Your task to perform on an android device: What's the weather today? Image 0: 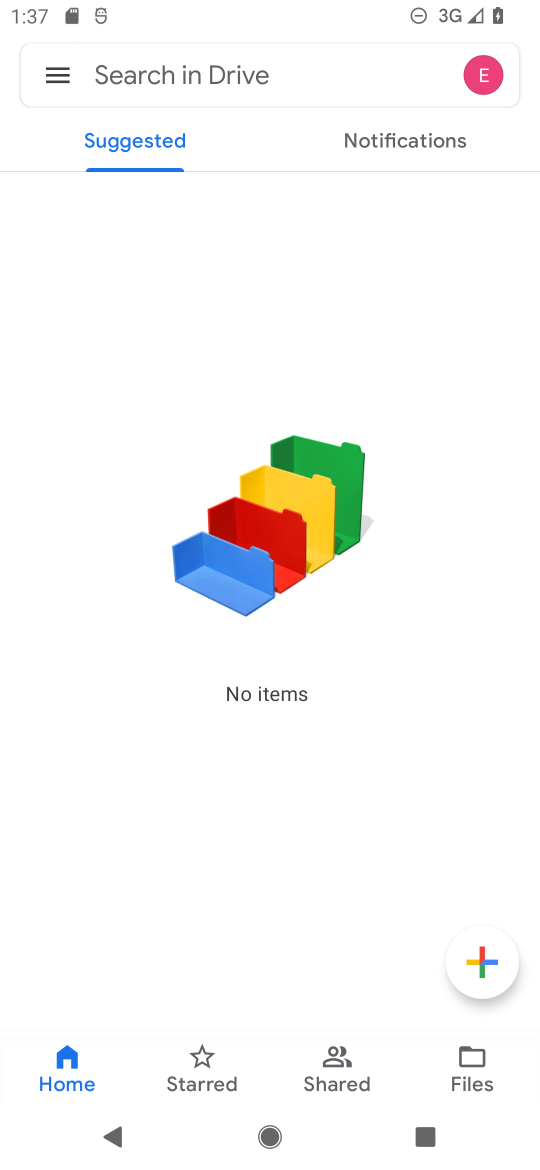
Step 0: press home button
Your task to perform on an android device: What's the weather today? Image 1: 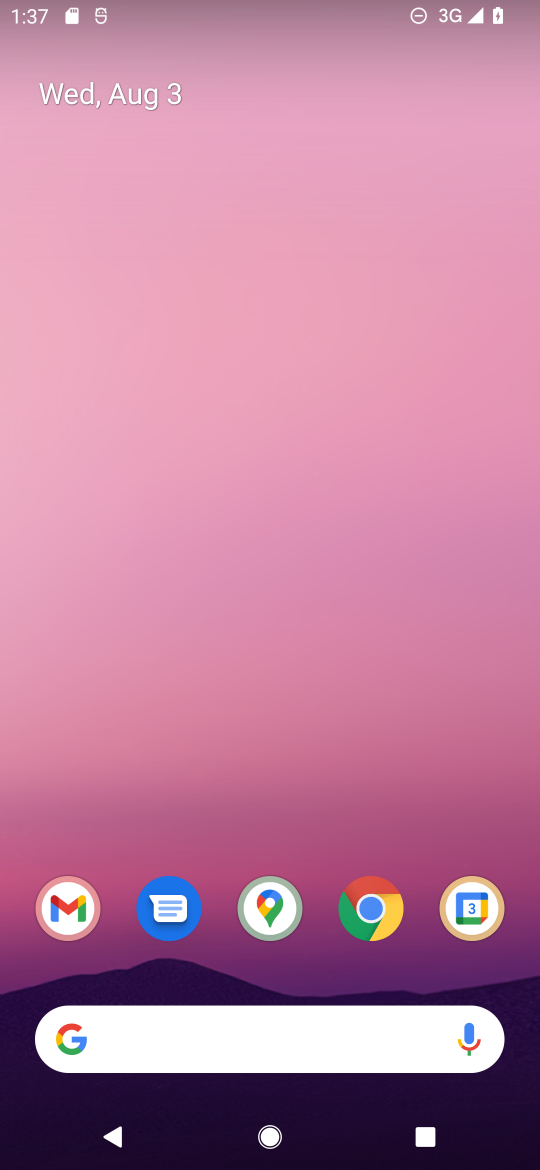
Step 1: drag from (245, 947) to (230, 376)
Your task to perform on an android device: What's the weather today? Image 2: 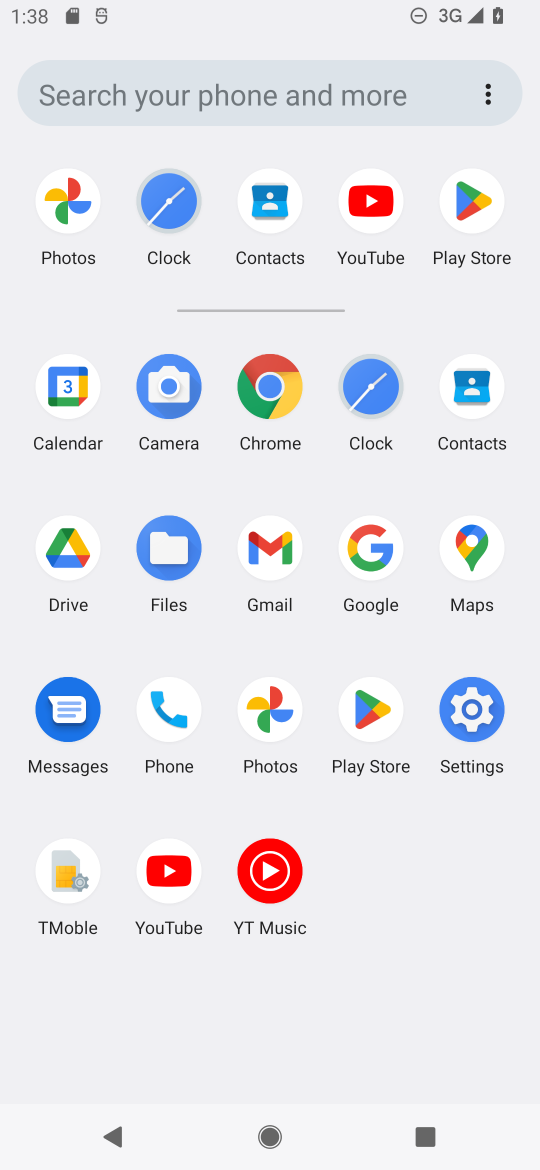
Step 2: click (360, 563)
Your task to perform on an android device: What's the weather today? Image 3: 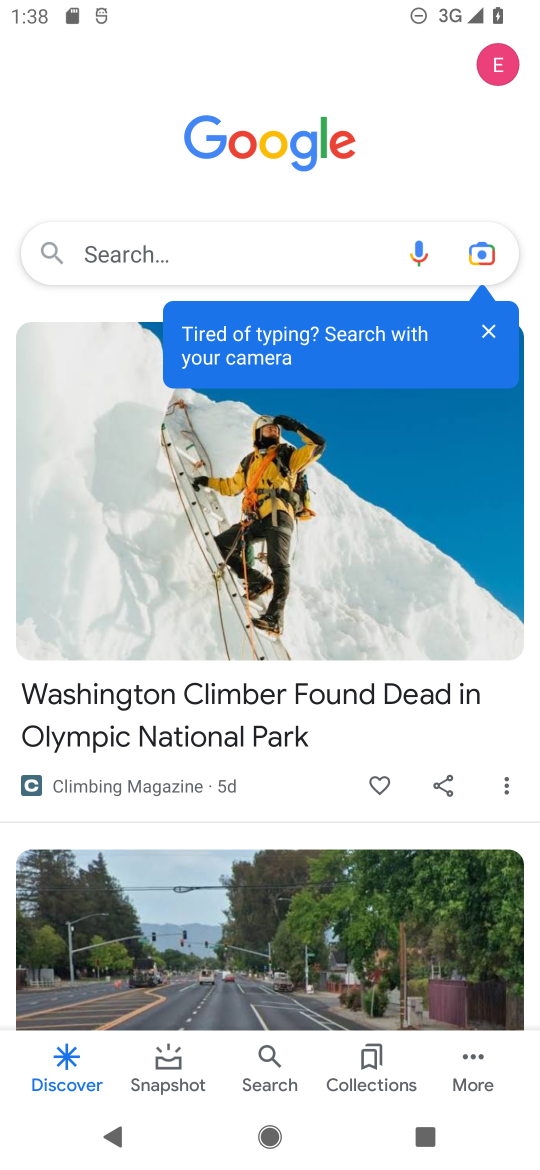
Step 3: click (139, 242)
Your task to perform on an android device: What's the weather today? Image 4: 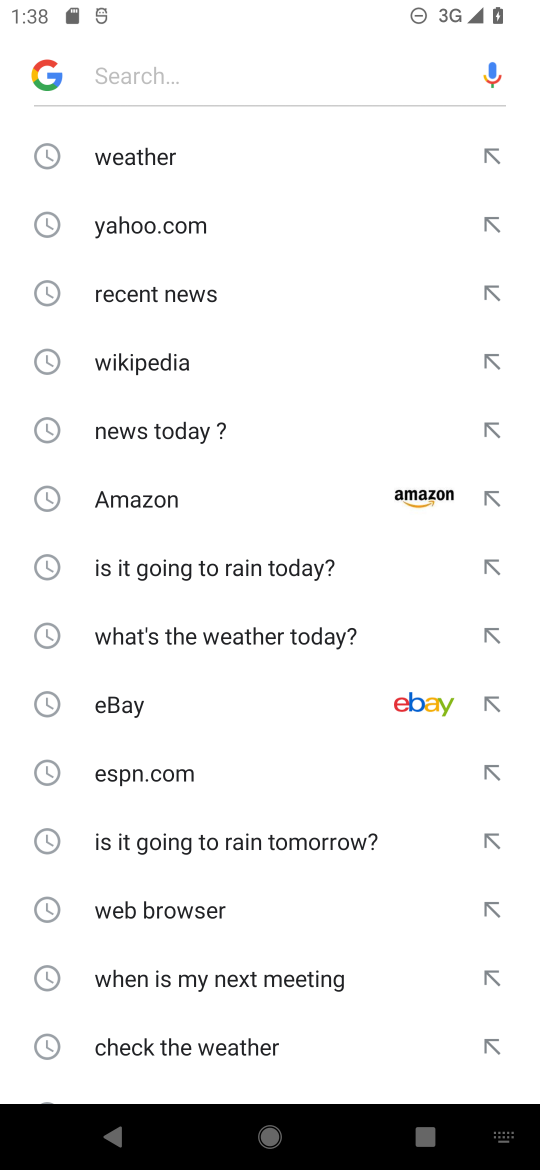
Step 4: click (148, 159)
Your task to perform on an android device: What's the weather today? Image 5: 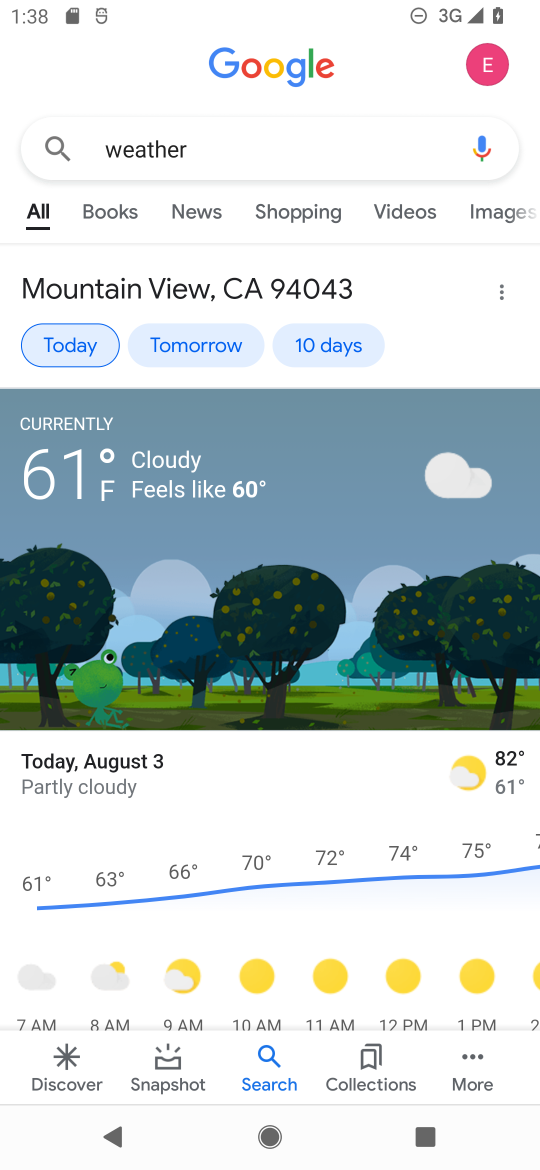
Step 5: task complete